Your task to perform on an android device: Open calendar and show me the fourth week of next month Image 0: 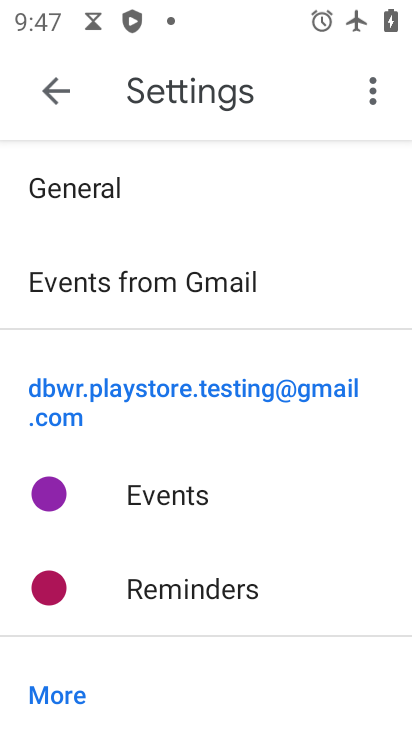
Step 0: press home button
Your task to perform on an android device: Open calendar and show me the fourth week of next month Image 1: 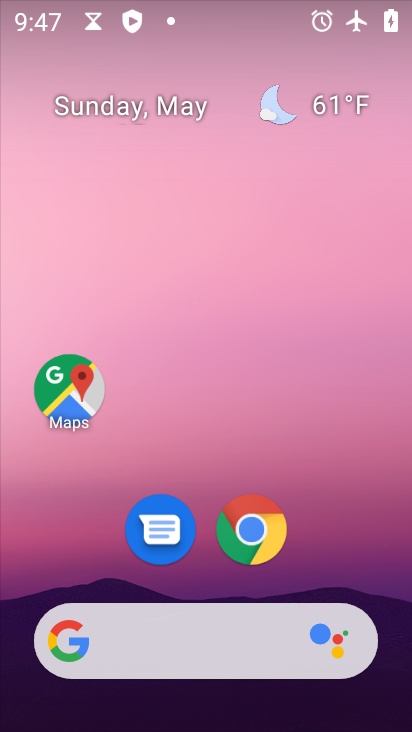
Step 1: drag from (204, 680) to (175, 240)
Your task to perform on an android device: Open calendar and show me the fourth week of next month Image 2: 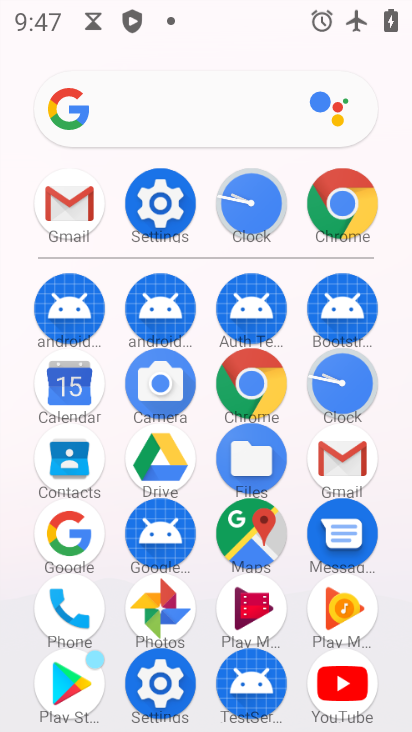
Step 2: click (78, 397)
Your task to perform on an android device: Open calendar and show me the fourth week of next month Image 3: 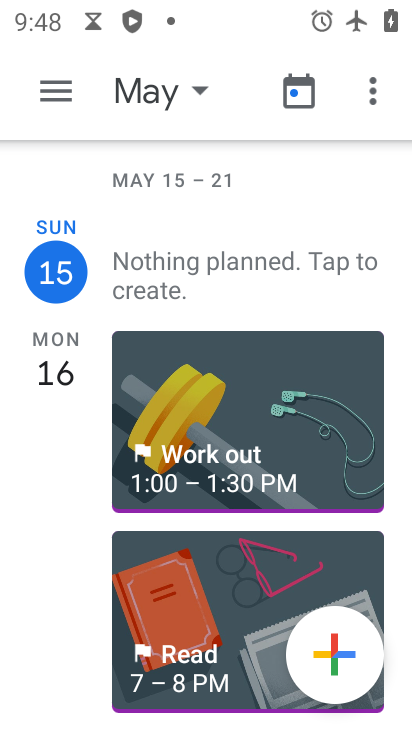
Step 3: click (41, 104)
Your task to perform on an android device: Open calendar and show me the fourth week of next month Image 4: 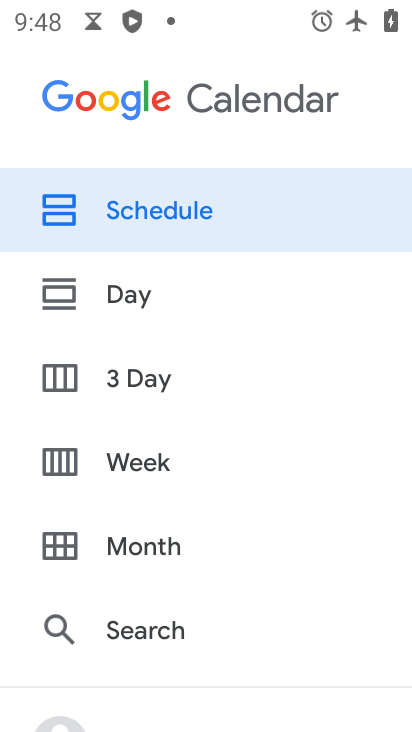
Step 4: click (128, 455)
Your task to perform on an android device: Open calendar and show me the fourth week of next month Image 5: 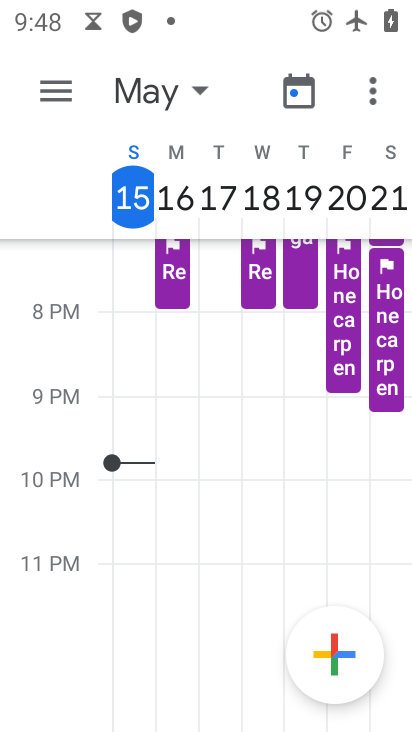
Step 5: drag from (368, 204) to (18, 204)
Your task to perform on an android device: Open calendar and show me the fourth week of next month Image 6: 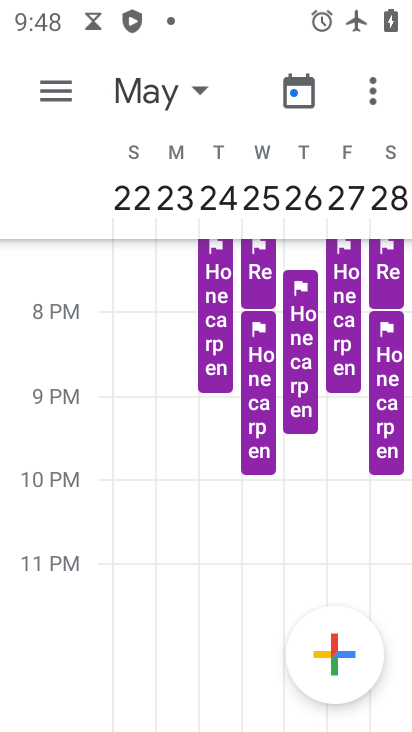
Step 6: drag from (367, 194) to (6, 180)
Your task to perform on an android device: Open calendar and show me the fourth week of next month Image 7: 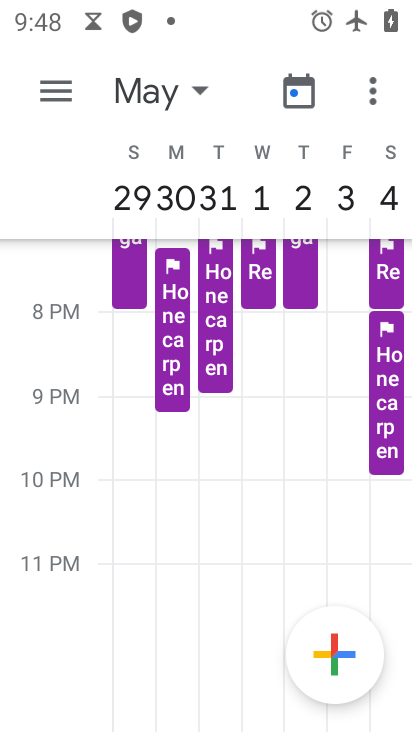
Step 7: drag from (384, 173) to (12, 189)
Your task to perform on an android device: Open calendar and show me the fourth week of next month Image 8: 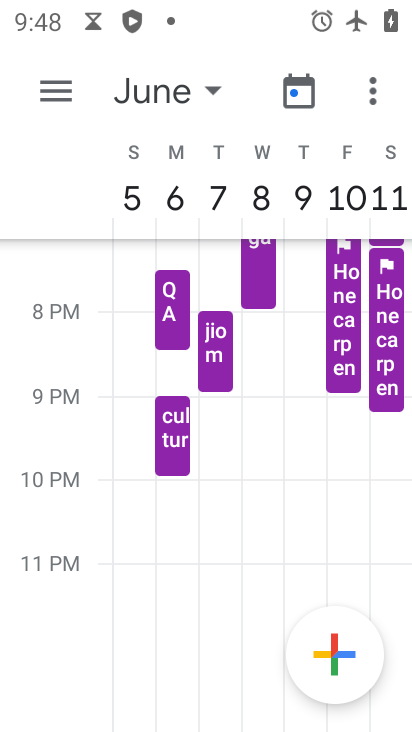
Step 8: drag from (390, 173) to (29, 167)
Your task to perform on an android device: Open calendar and show me the fourth week of next month Image 9: 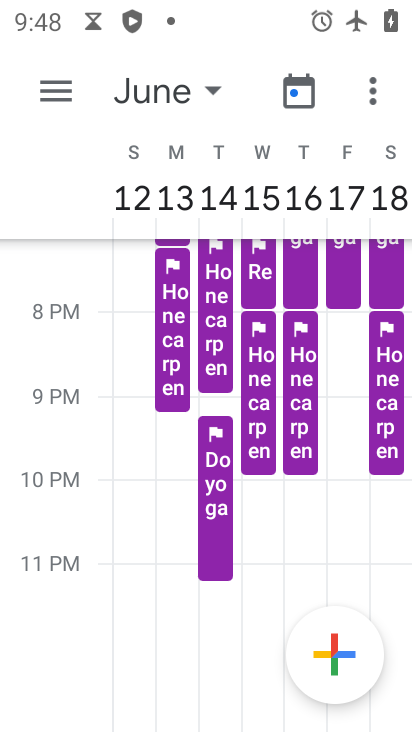
Step 9: click (205, 89)
Your task to perform on an android device: Open calendar and show me the fourth week of next month Image 10: 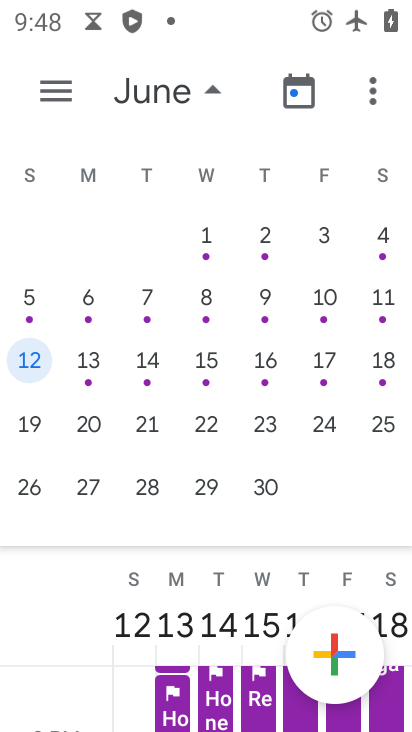
Step 10: click (80, 477)
Your task to perform on an android device: Open calendar and show me the fourth week of next month Image 11: 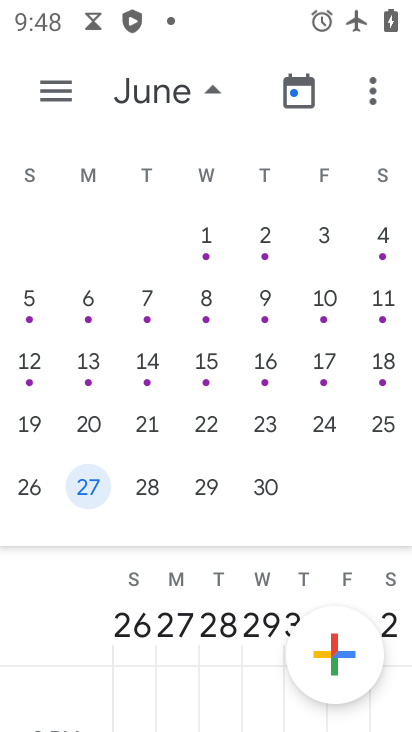
Step 11: task complete